Your task to perform on an android device: toggle show notifications on the lock screen Image 0: 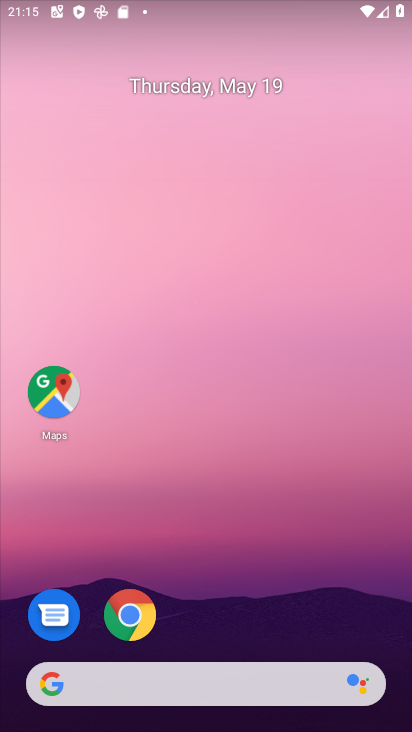
Step 0: drag from (273, 593) to (271, 73)
Your task to perform on an android device: toggle show notifications on the lock screen Image 1: 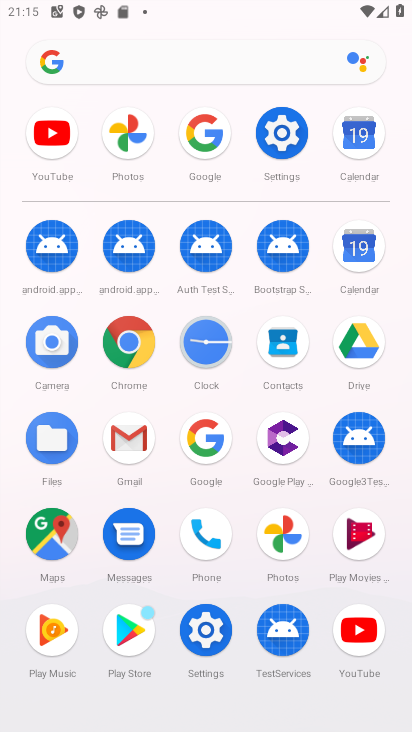
Step 1: click (278, 126)
Your task to perform on an android device: toggle show notifications on the lock screen Image 2: 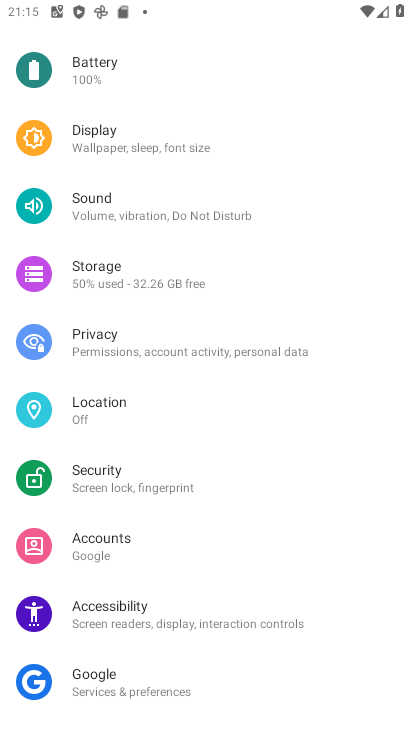
Step 2: drag from (209, 231) to (223, 484)
Your task to perform on an android device: toggle show notifications on the lock screen Image 3: 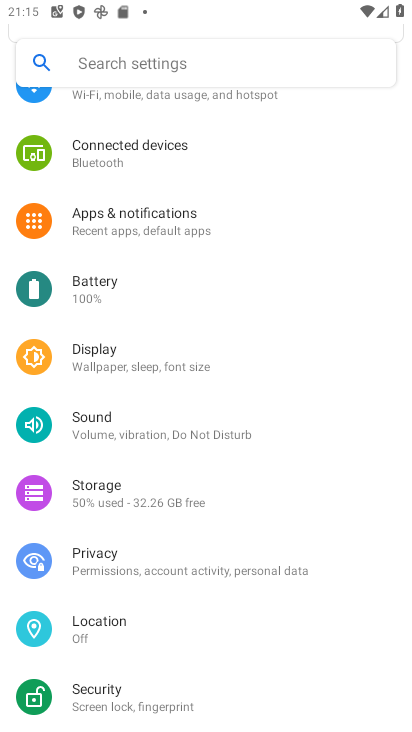
Step 3: click (125, 241)
Your task to perform on an android device: toggle show notifications on the lock screen Image 4: 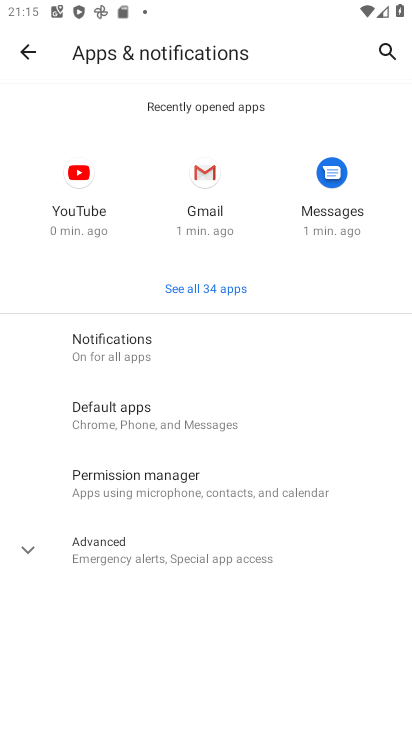
Step 4: click (105, 339)
Your task to perform on an android device: toggle show notifications on the lock screen Image 5: 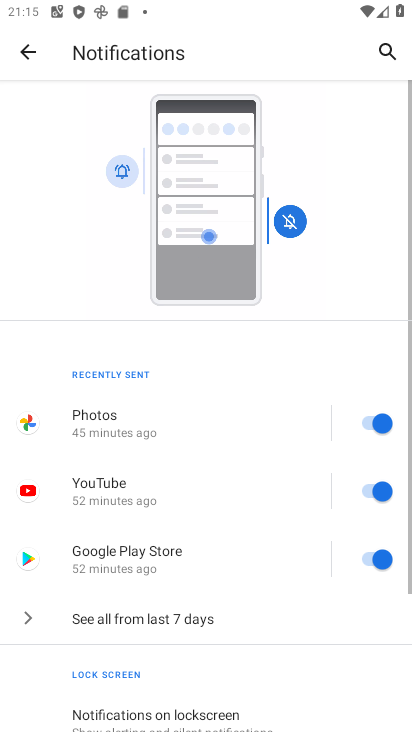
Step 5: drag from (241, 658) to (241, 408)
Your task to perform on an android device: toggle show notifications on the lock screen Image 6: 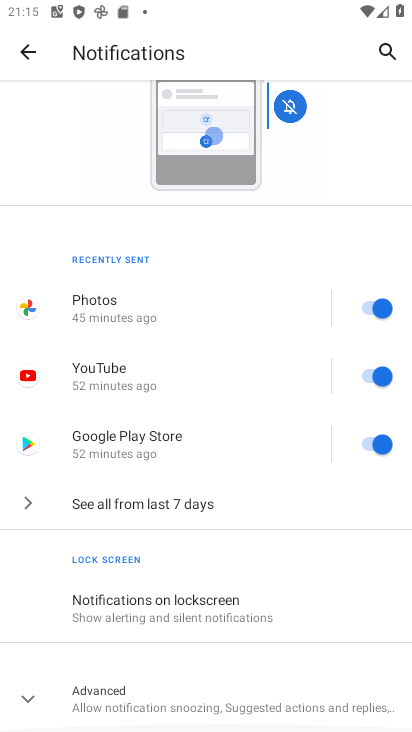
Step 6: click (134, 605)
Your task to perform on an android device: toggle show notifications on the lock screen Image 7: 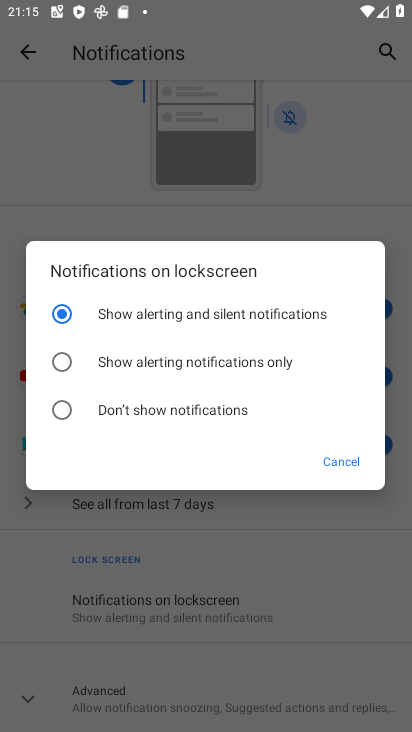
Step 7: click (69, 407)
Your task to perform on an android device: toggle show notifications on the lock screen Image 8: 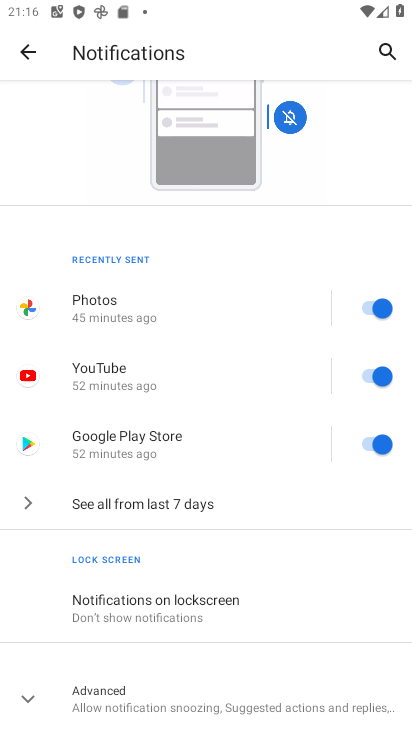
Step 8: task complete